Your task to perform on an android device: toggle notifications settings in the gmail app Image 0: 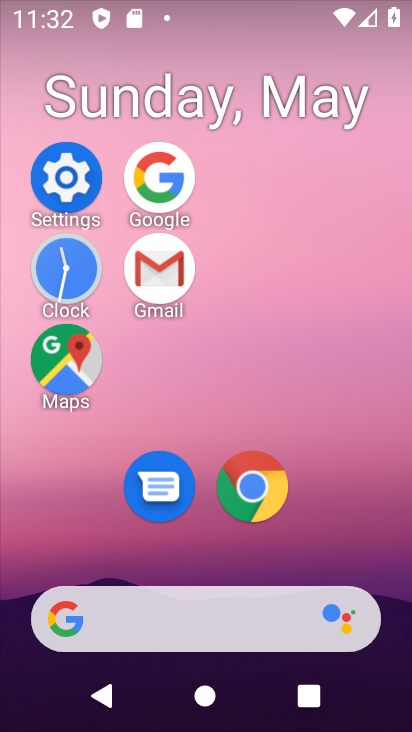
Step 0: click (168, 249)
Your task to perform on an android device: toggle notifications settings in the gmail app Image 1: 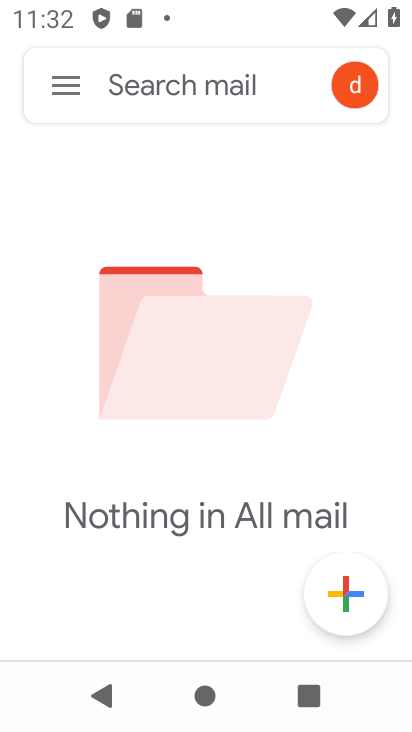
Step 1: click (68, 104)
Your task to perform on an android device: toggle notifications settings in the gmail app Image 2: 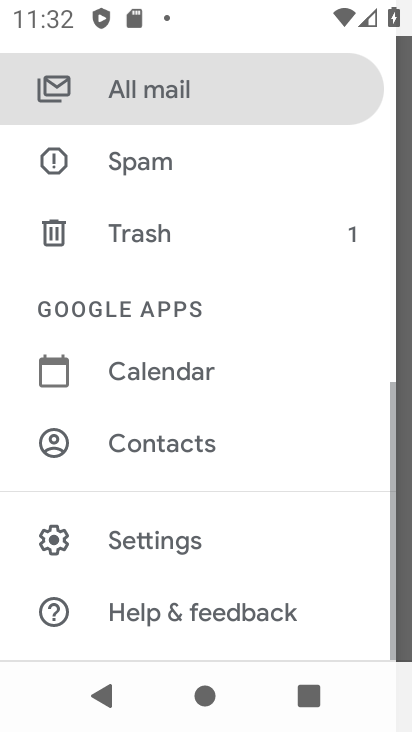
Step 2: click (169, 558)
Your task to perform on an android device: toggle notifications settings in the gmail app Image 3: 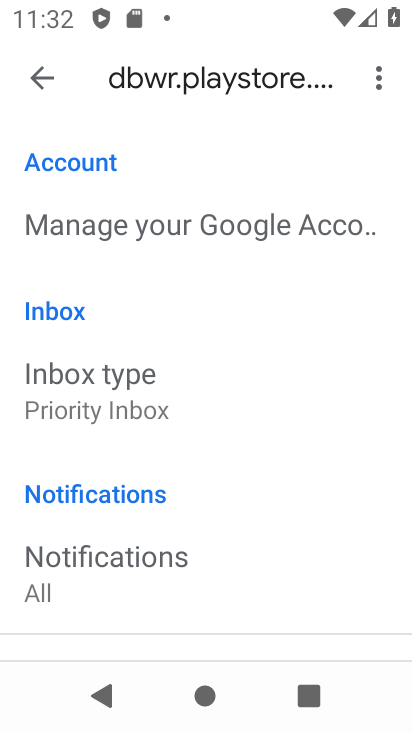
Step 3: click (169, 558)
Your task to perform on an android device: toggle notifications settings in the gmail app Image 4: 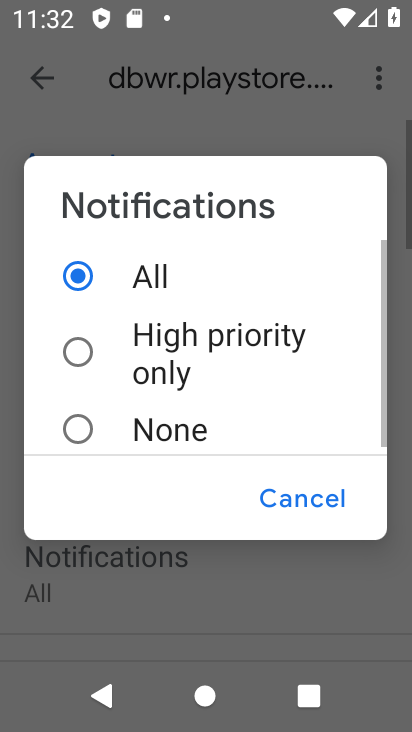
Step 4: click (158, 338)
Your task to perform on an android device: toggle notifications settings in the gmail app Image 5: 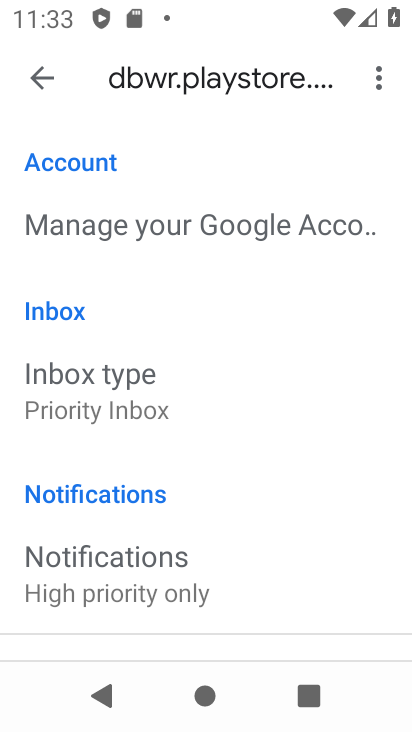
Step 5: click (200, 566)
Your task to perform on an android device: toggle notifications settings in the gmail app Image 6: 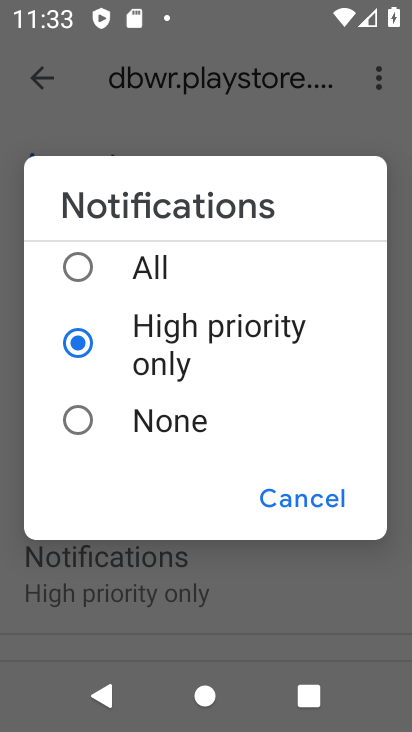
Step 6: task complete